Your task to perform on an android device: toggle show notifications on the lock screen Image 0: 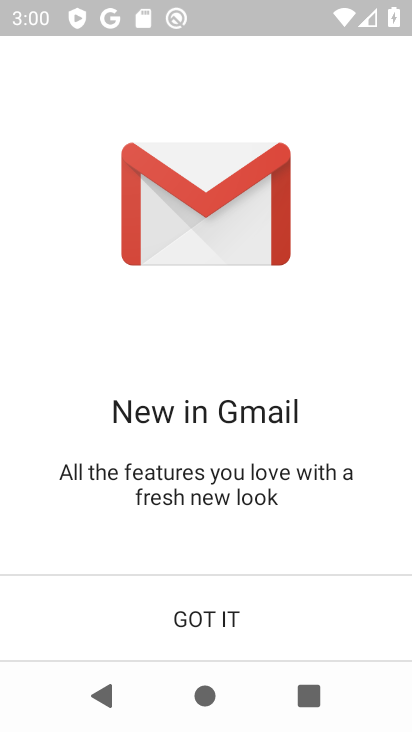
Step 0: press home button
Your task to perform on an android device: toggle show notifications on the lock screen Image 1: 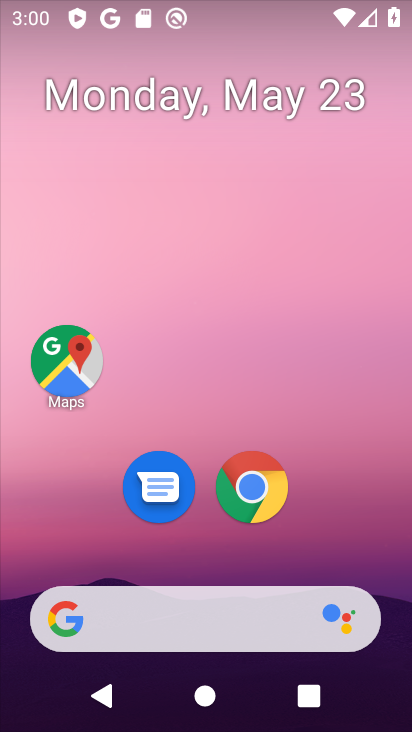
Step 1: drag from (296, 563) to (336, 114)
Your task to perform on an android device: toggle show notifications on the lock screen Image 2: 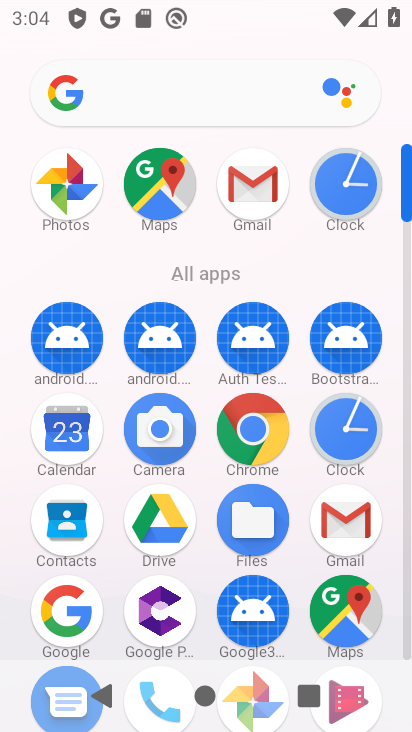
Step 2: click (411, 654)
Your task to perform on an android device: toggle show notifications on the lock screen Image 3: 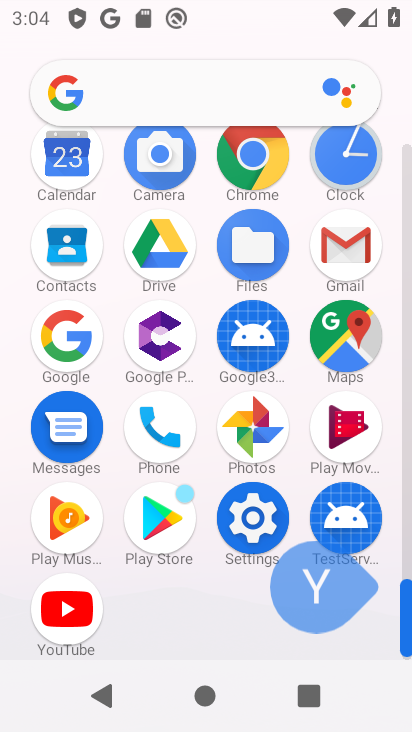
Step 3: click (410, 651)
Your task to perform on an android device: toggle show notifications on the lock screen Image 4: 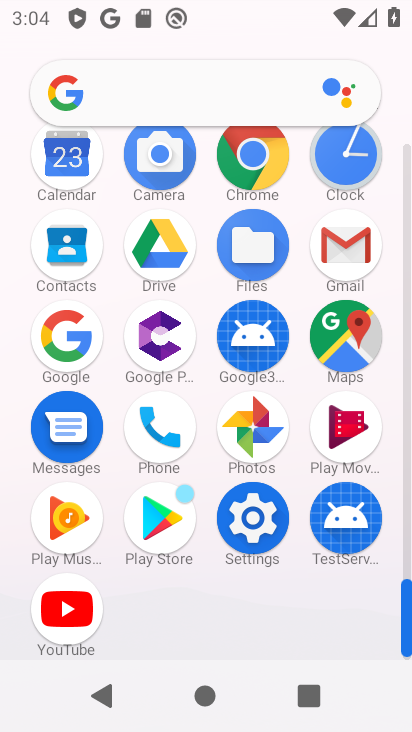
Step 4: click (275, 543)
Your task to perform on an android device: toggle show notifications on the lock screen Image 5: 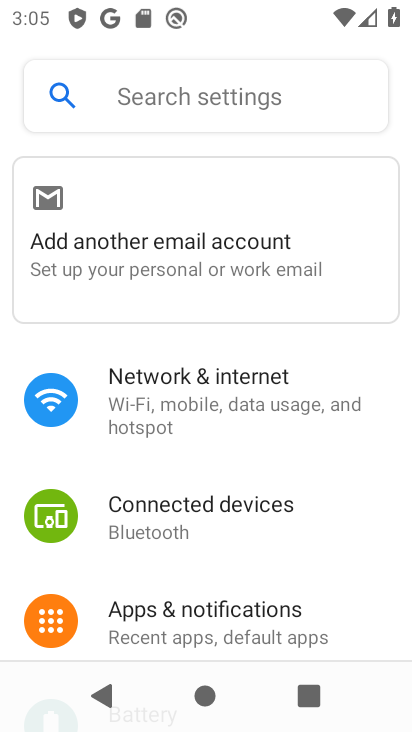
Step 5: drag from (164, 551) to (145, 411)
Your task to perform on an android device: toggle show notifications on the lock screen Image 6: 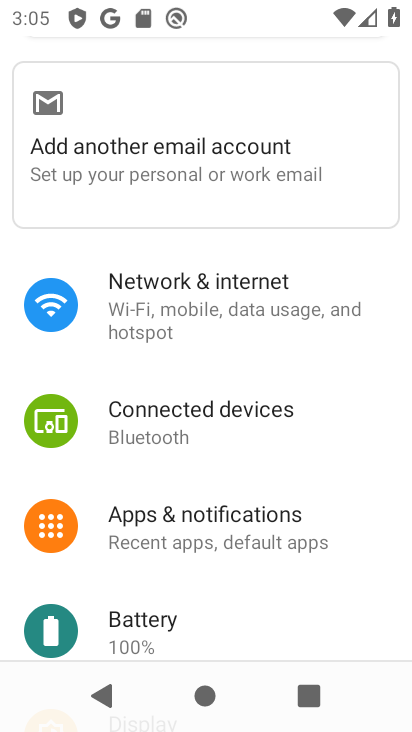
Step 6: click (180, 502)
Your task to perform on an android device: toggle show notifications on the lock screen Image 7: 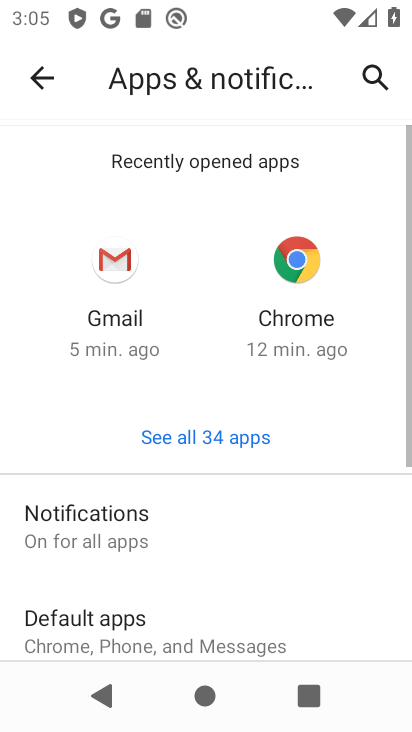
Step 7: click (116, 525)
Your task to perform on an android device: toggle show notifications on the lock screen Image 8: 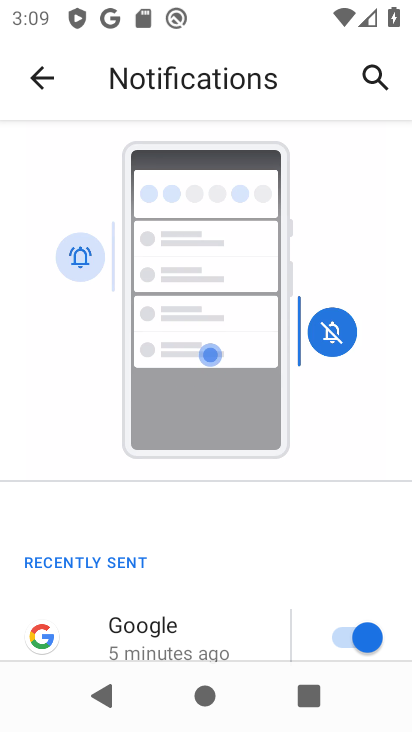
Step 8: drag from (164, 434) to (51, 205)
Your task to perform on an android device: toggle show notifications on the lock screen Image 9: 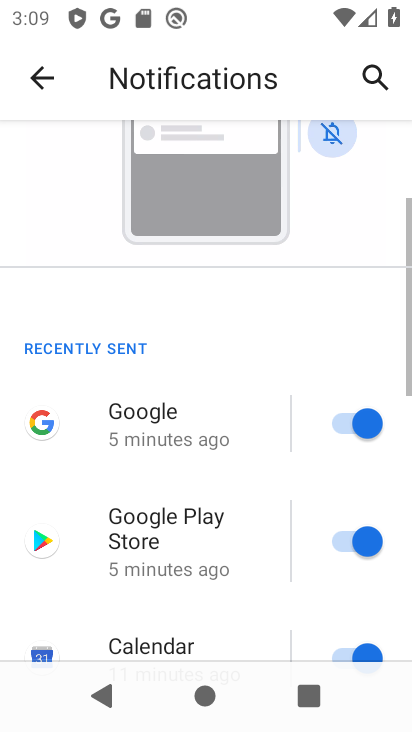
Step 9: drag from (243, 446) to (110, 156)
Your task to perform on an android device: toggle show notifications on the lock screen Image 10: 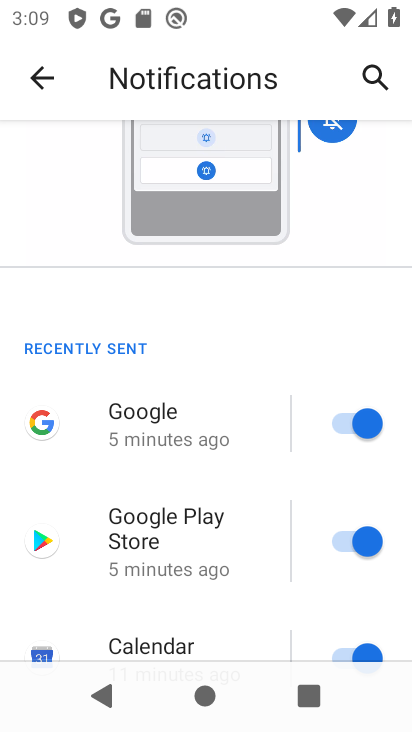
Step 10: click (237, 369)
Your task to perform on an android device: toggle show notifications on the lock screen Image 11: 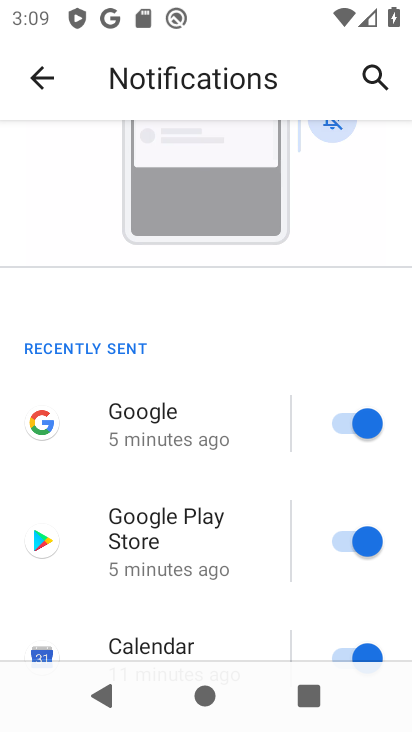
Step 11: drag from (260, 592) to (210, 95)
Your task to perform on an android device: toggle show notifications on the lock screen Image 12: 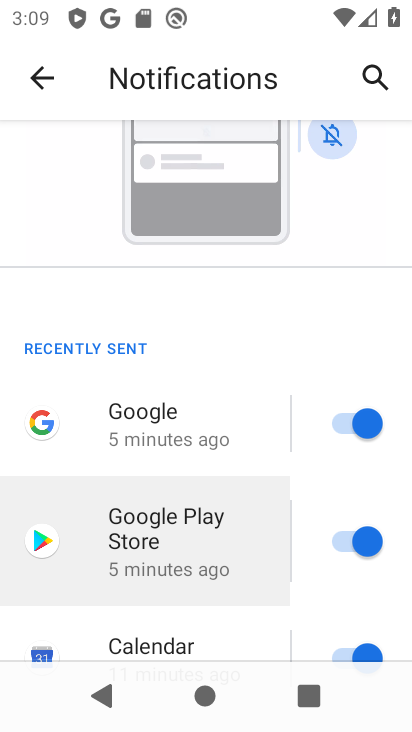
Step 12: drag from (139, 523) to (139, 322)
Your task to perform on an android device: toggle show notifications on the lock screen Image 13: 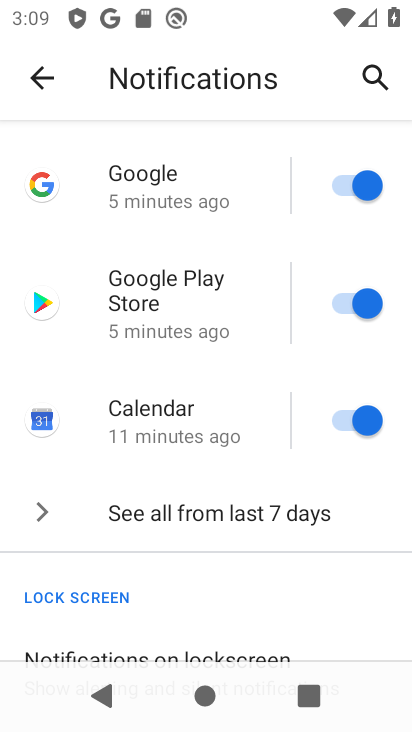
Step 13: drag from (254, 549) to (218, 379)
Your task to perform on an android device: toggle show notifications on the lock screen Image 14: 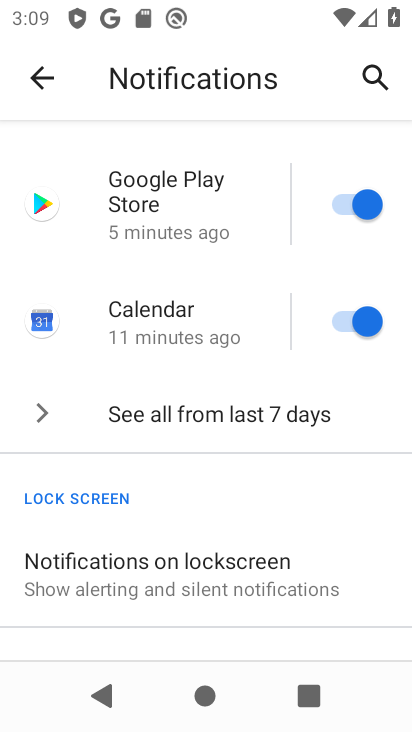
Step 14: click (165, 584)
Your task to perform on an android device: toggle show notifications on the lock screen Image 15: 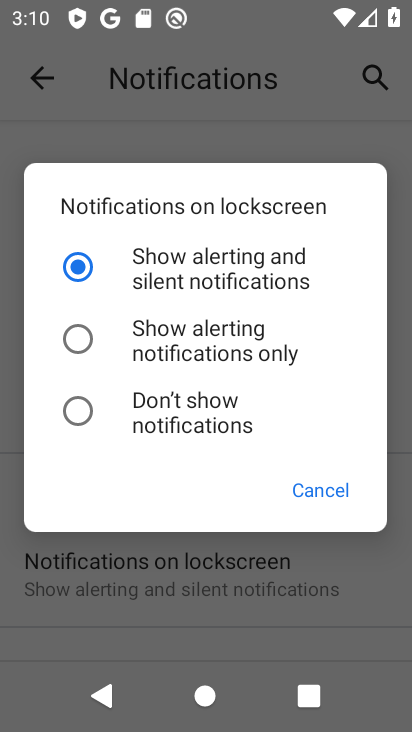
Step 15: click (233, 352)
Your task to perform on an android device: toggle show notifications on the lock screen Image 16: 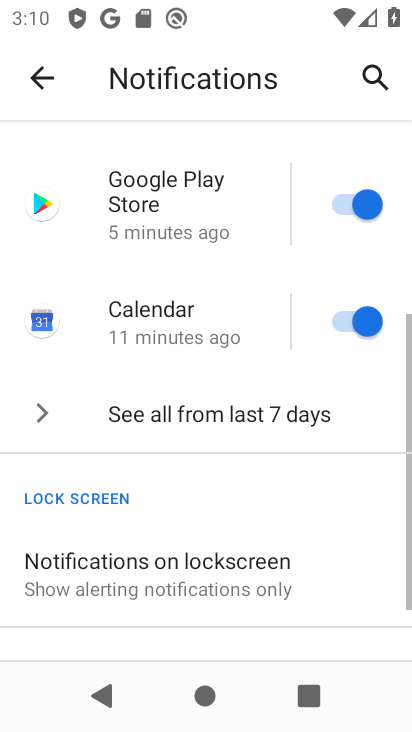
Step 16: task complete